Your task to perform on an android device: Check the news Image 0: 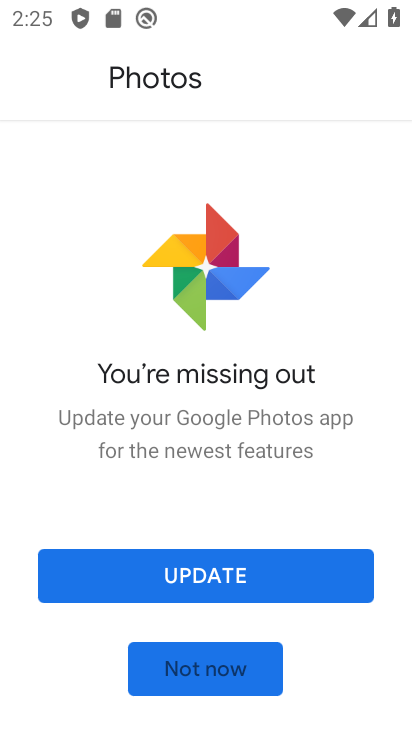
Step 0: press back button
Your task to perform on an android device: Check the news Image 1: 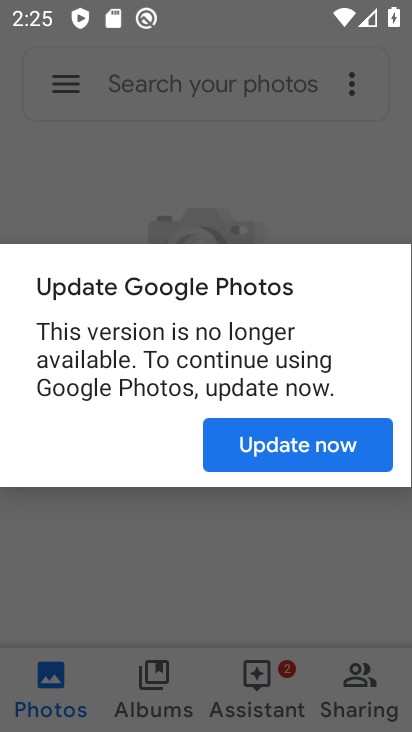
Step 1: press home button
Your task to perform on an android device: Check the news Image 2: 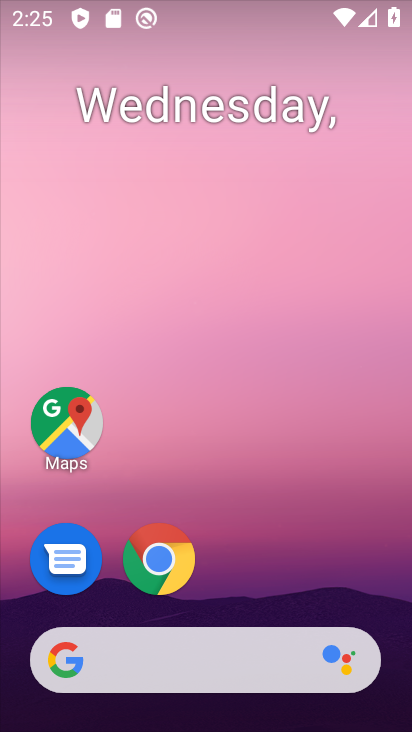
Step 2: click (121, 688)
Your task to perform on an android device: Check the news Image 3: 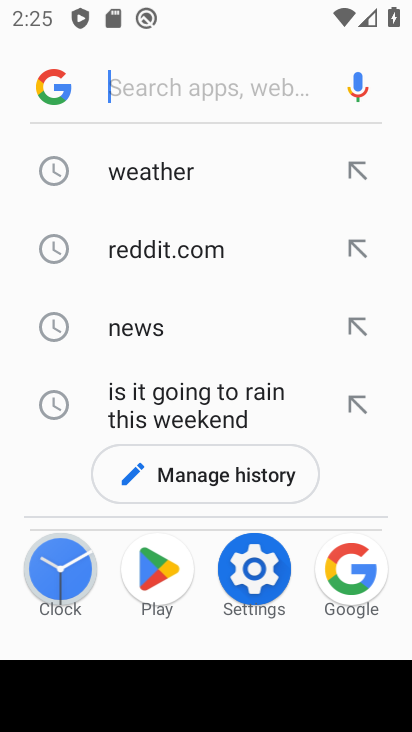
Step 3: click (145, 313)
Your task to perform on an android device: Check the news Image 4: 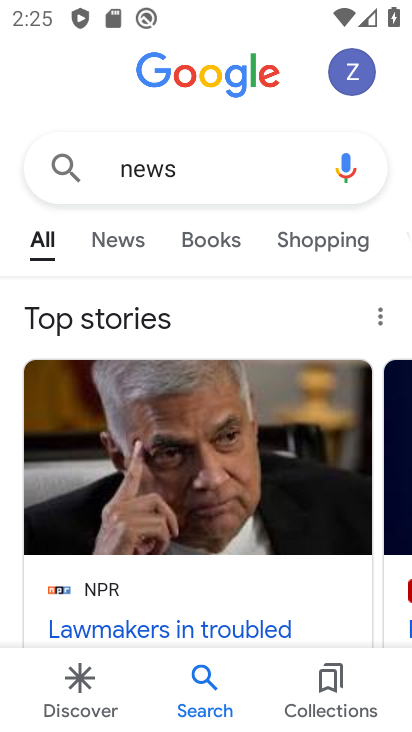
Step 4: task complete